Your task to perform on an android device: toggle location history Image 0: 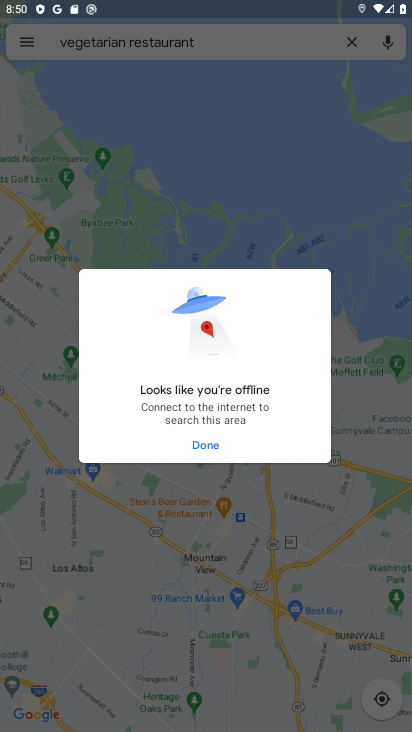
Step 0: drag from (232, 632) to (242, 256)
Your task to perform on an android device: toggle location history Image 1: 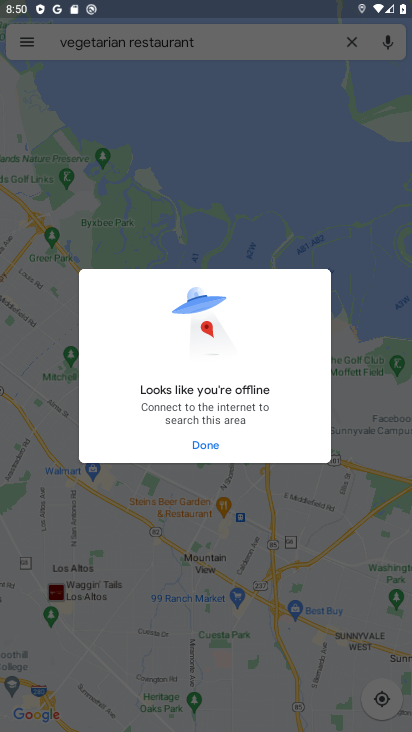
Step 1: press home button
Your task to perform on an android device: toggle location history Image 2: 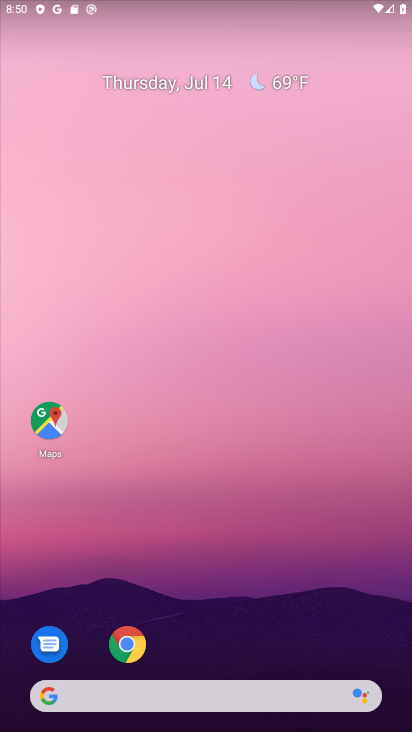
Step 2: drag from (250, 11) to (241, 731)
Your task to perform on an android device: toggle location history Image 3: 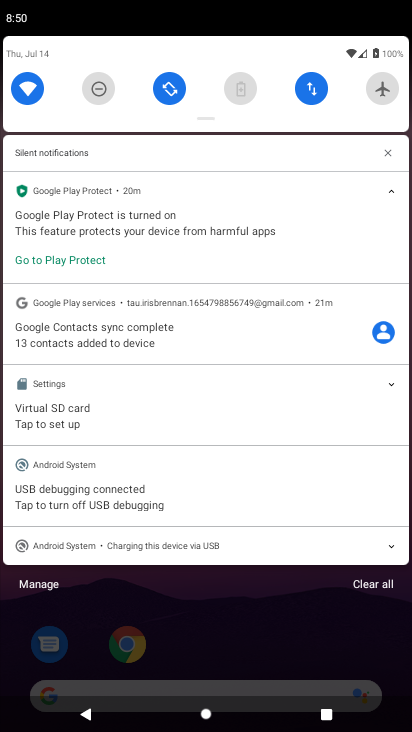
Step 3: drag from (212, 62) to (162, 687)
Your task to perform on an android device: toggle location history Image 4: 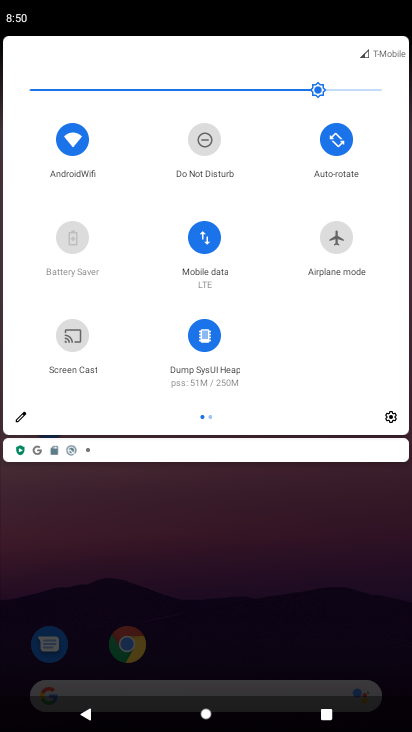
Step 4: click (390, 419)
Your task to perform on an android device: toggle location history Image 5: 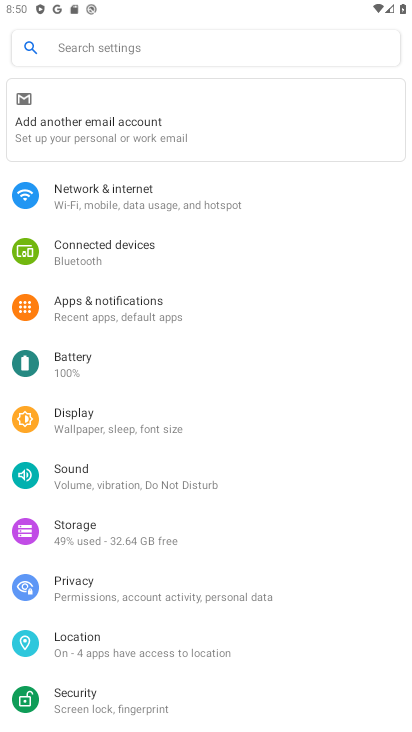
Step 5: click (80, 658)
Your task to perform on an android device: toggle location history Image 6: 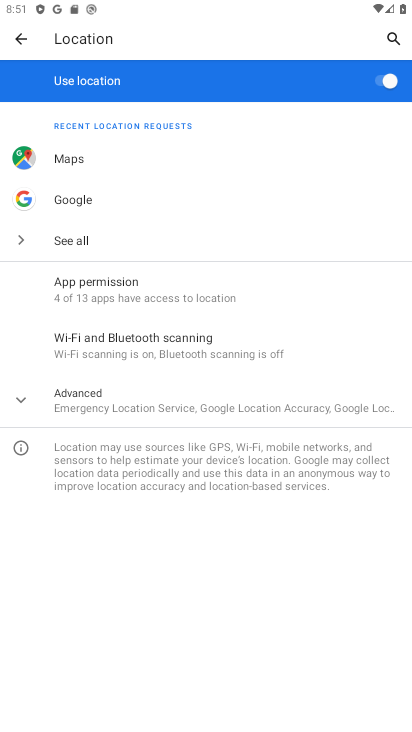
Step 6: click (147, 384)
Your task to perform on an android device: toggle location history Image 7: 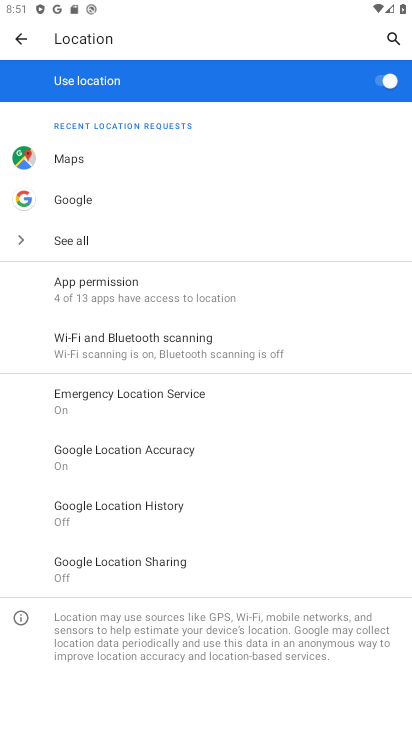
Step 7: click (181, 505)
Your task to perform on an android device: toggle location history Image 8: 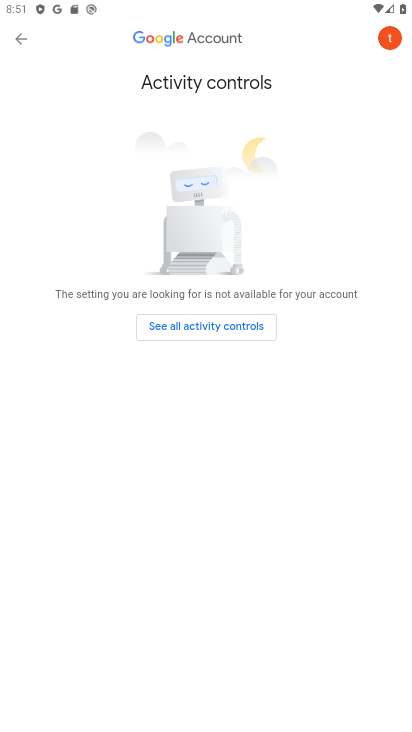
Step 8: task complete